Your task to perform on an android device: delete location history Image 0: 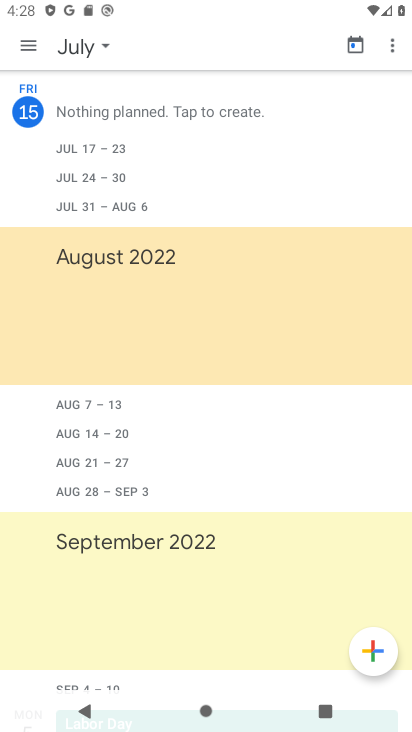
Step 0: press home button
Your task to perform on an android device: delete location history Image 1: 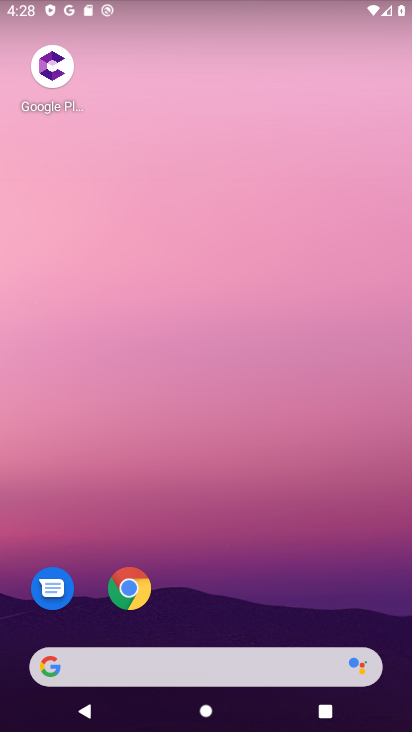
Step 1: drag from (184, 613) to (229, 97)
Your task to perform on an android device: delete location history Image 2: 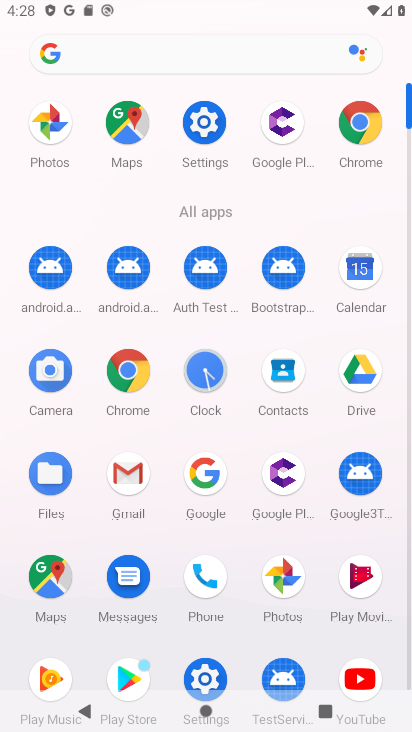
Step 2: click (55, 566)
Your task to perform on an android device: delete location history Image 3: 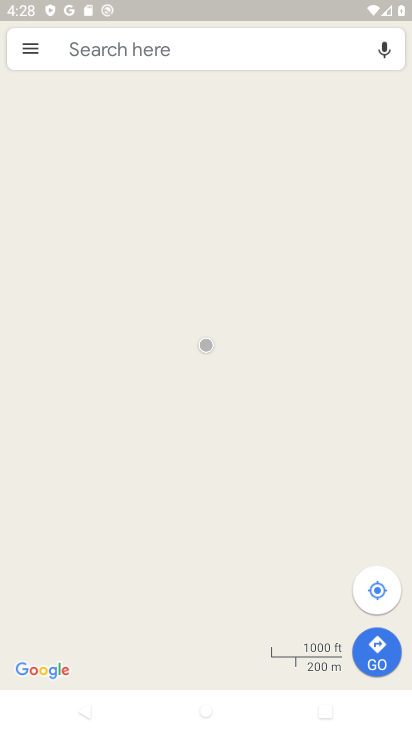
Step 3: click (24, 39)
Your task to perform on an android device: delete location history Image 4: 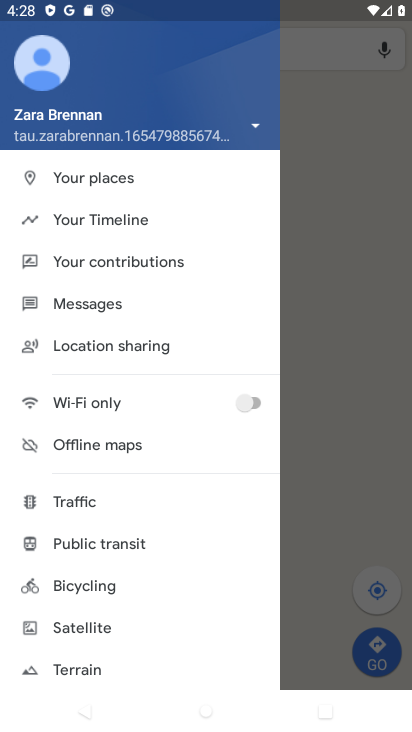
Step 4: click (105, 221)
Your task to perform on an android device: delete location history Image 5: 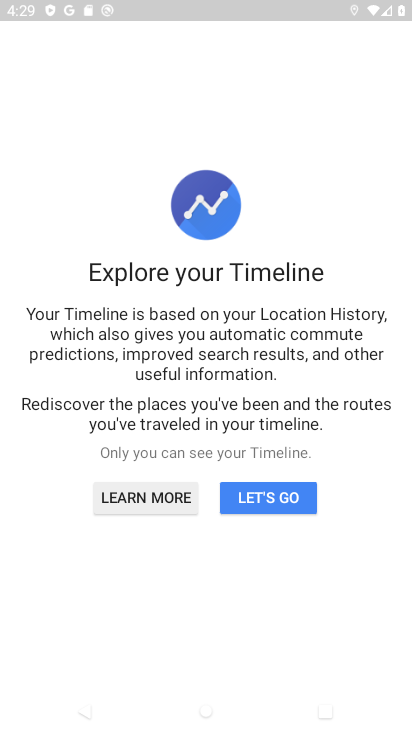
Step 5: click (257, 483)
Your task to perform on an android device: delete location history Image 6: 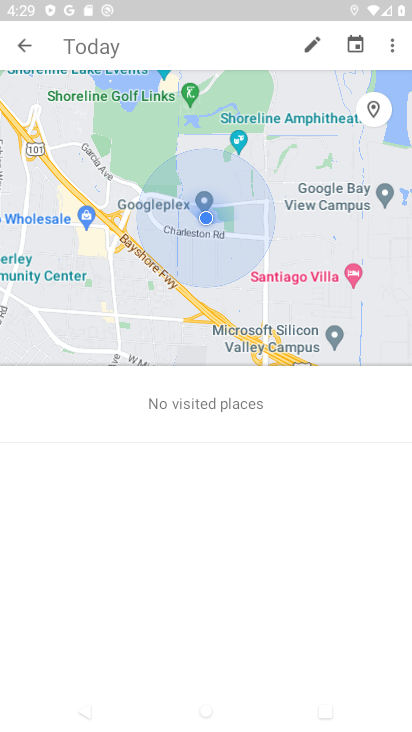
Step 6: click (396, 38)
Your task to perform on an android device: delete location history Image 7: 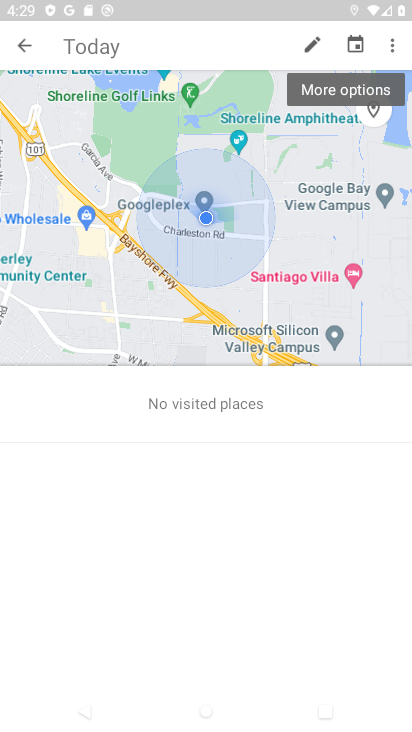
Step 7: click (396, 38)
Your task to perform on an android device: delete location history Image 8: 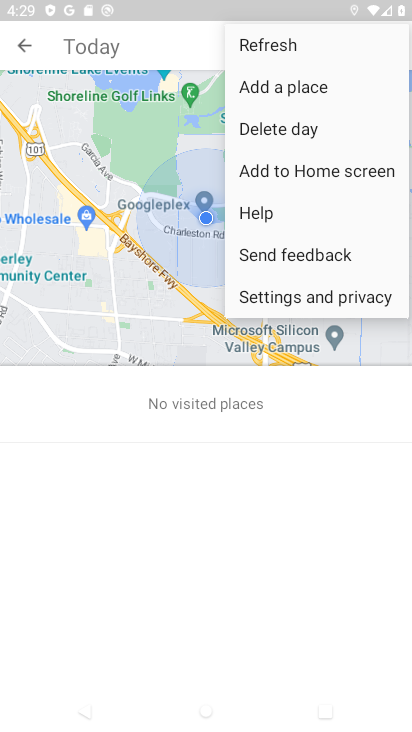
Step 8: click (307, 288)
Your task to perform on an android device: delete location history Image 9: 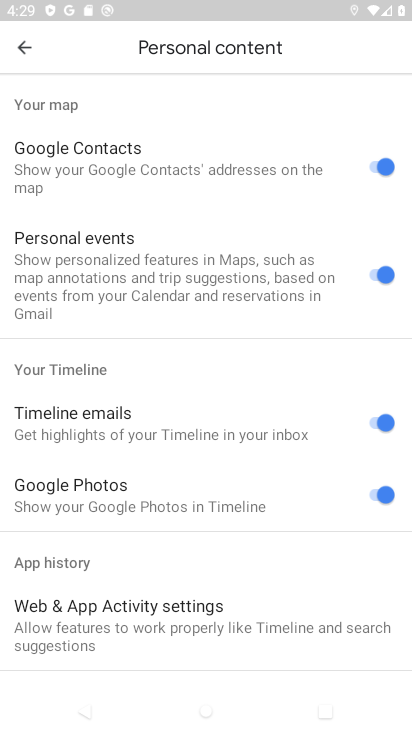
Step 9: drag from (231, 449) to (204, 164)
Your task to perform on an android device: delete location history Image 10: 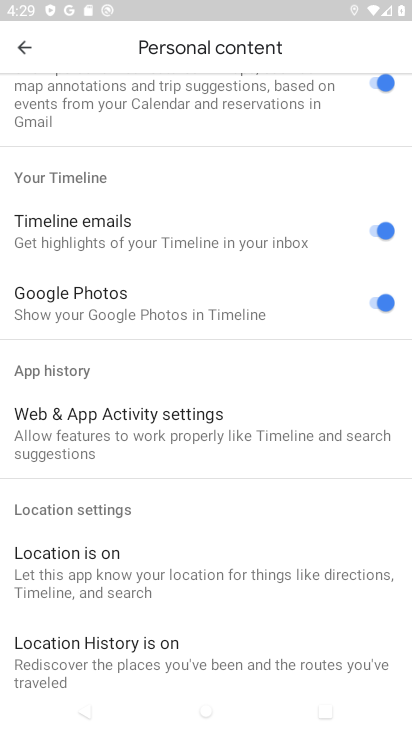
Step 10: drag from (68, 657) to (97, 299)
Your task to perform on an android device: delete location history Image 11: 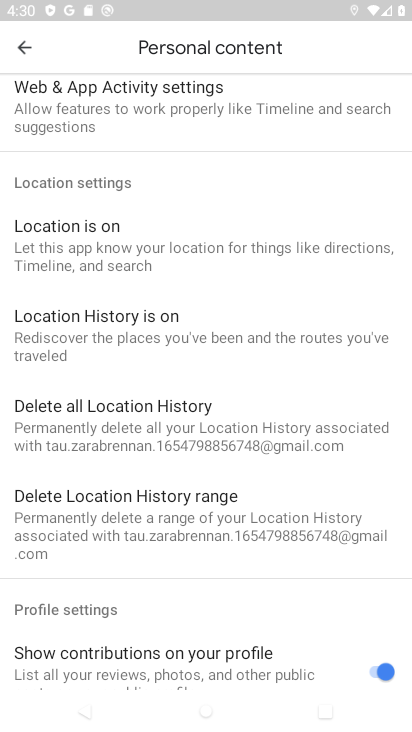
Step 11: click (72, 504)
Your task to perform on an android device: delete location history Image 12: 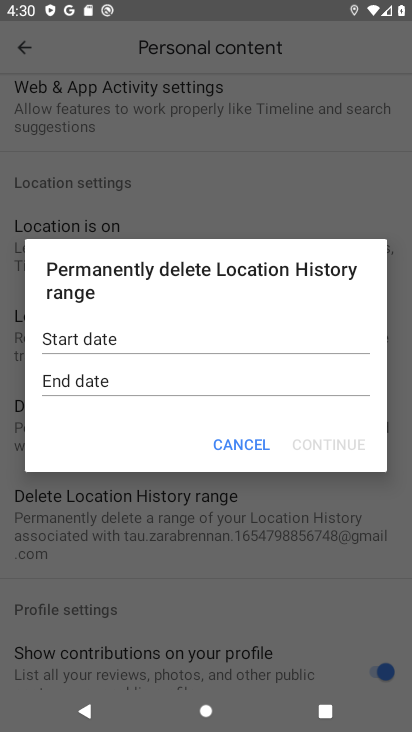
Step 12: click (229, 445)
Your task to perform on an android device: delete location history Image 13: 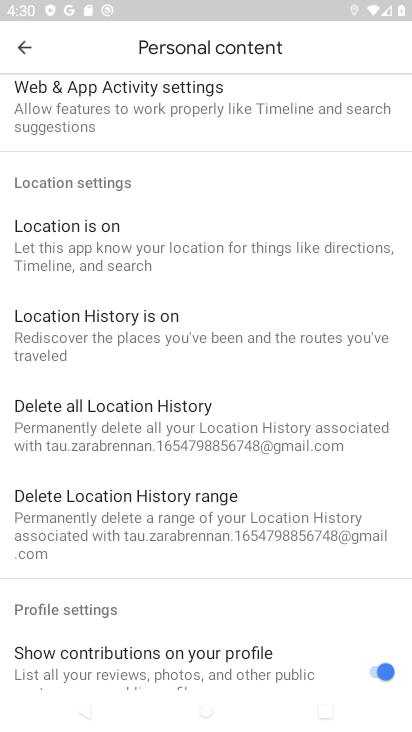
Step 13: click (33, 436)
Your task to perform on an android device: delete location history Image 14: 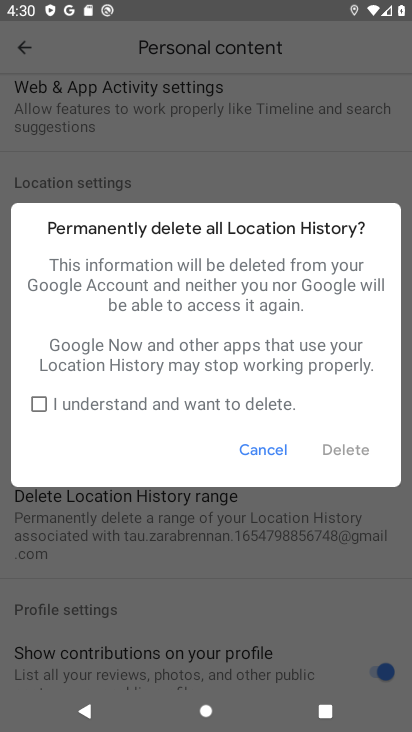
Step 14: click (31, 402)
Your task to perform on an android device: delete location history Image 15: 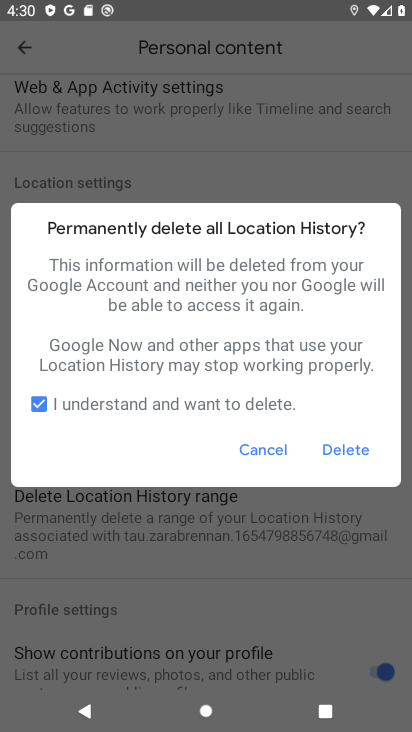
Step 15: click (347, 461)
Your task to perform on an android device: delete location history Image 16: 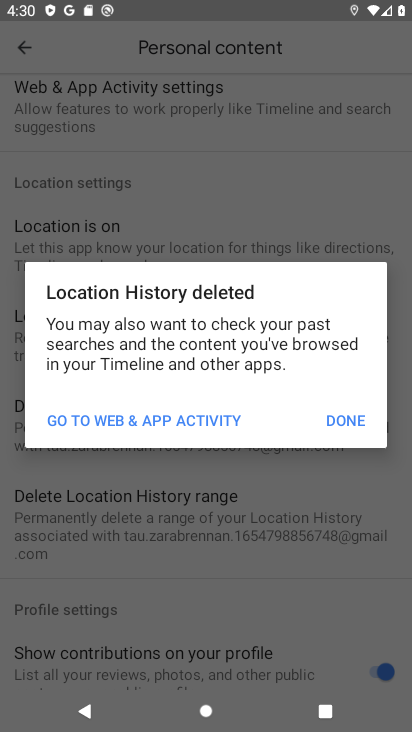
Step 16: click (334, 408)
Your task to perform on an android device: delete location history Image 17: 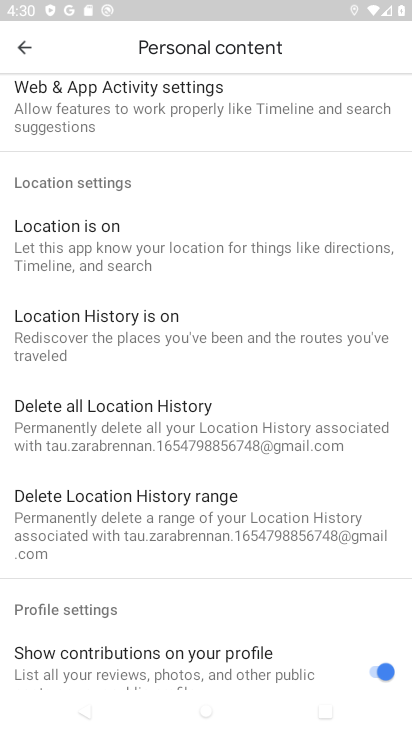
Step 17: task complete